Your task to perform on an android device: turn off data saver in the chrome app Image 0: 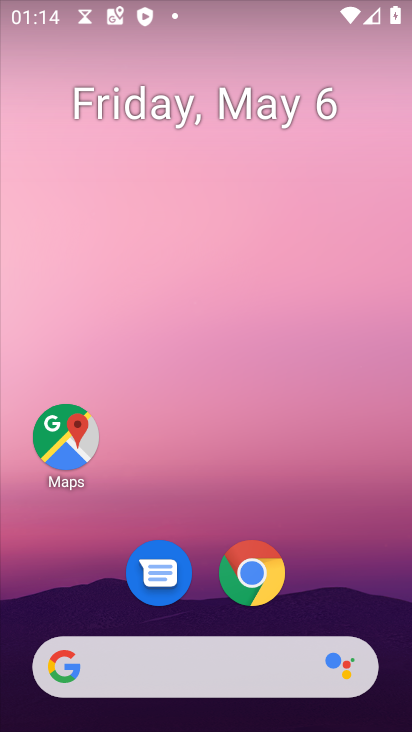
Step 0: drag from (309, 495) to (303, 305)
Your task to perform on an android device: turn off data saver in the chrome app Image 1: 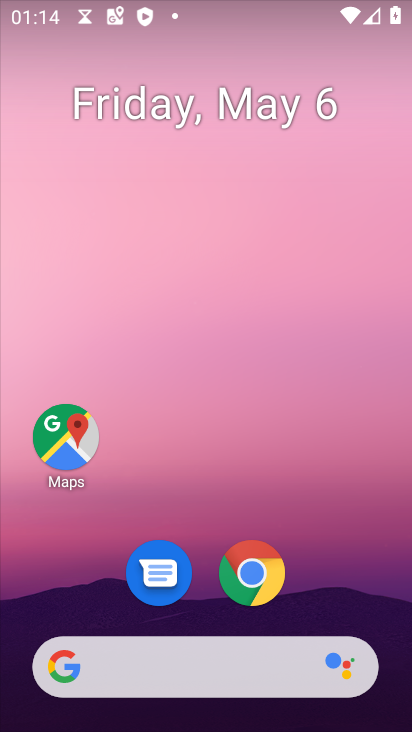
Step 1: drag from (341, 358) to (341, 224)
Your task to perform on an android device: turn off data saver in the chrome app Image 2: 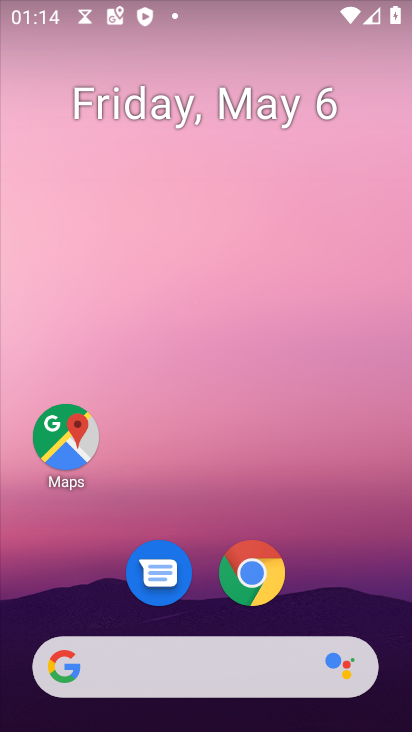
Step 2: drag from (231, 601) to (288, 198)
Your task to perform on an android device: turn off data saver in the chrome app Image 3: 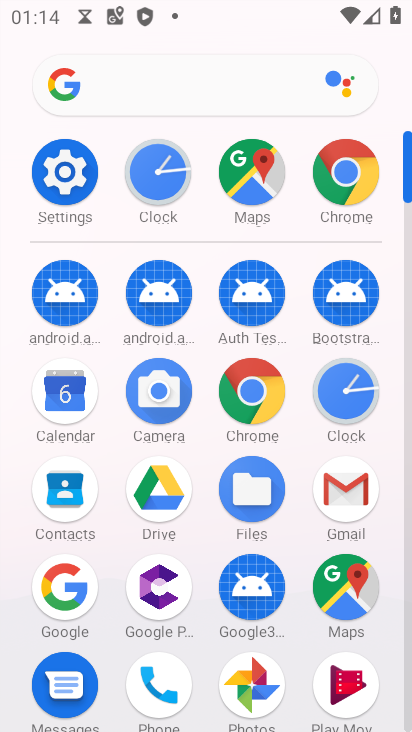
Step 3: click (251, 378)
Your task to perform on an android device: turn off data saver in the chrome app Image 4: 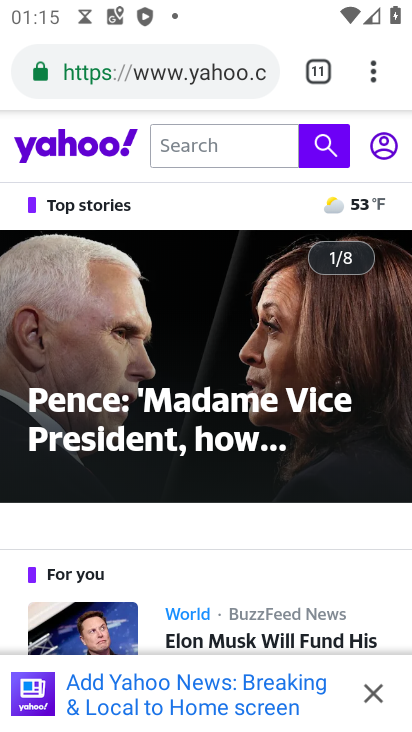
Step 4: click (354, 70)
Your task to perform on an android device: turn off data saver in the chrome app Image 5: 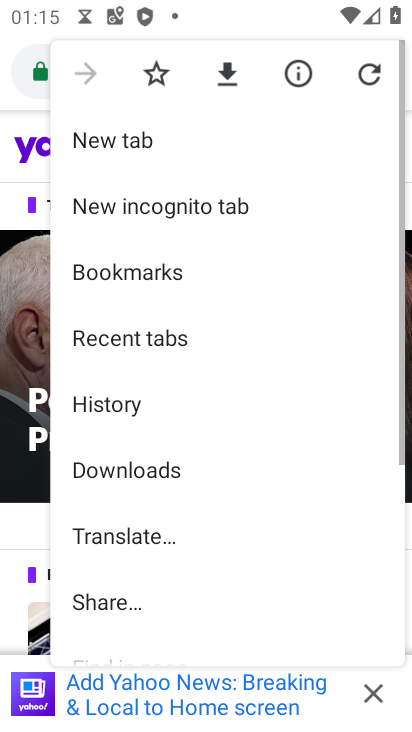
Step 5: drag from (131, 577) to (253, 185)
Your task to perform on an android device: turn off data saver in the chrome app Image 6: 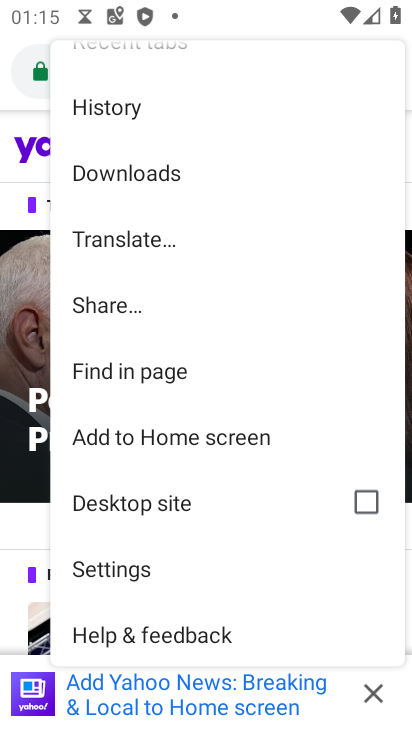
Step 6: click (155, 574)
Your task to perform on an android device: turn off data saver in the chrome app Image 7: 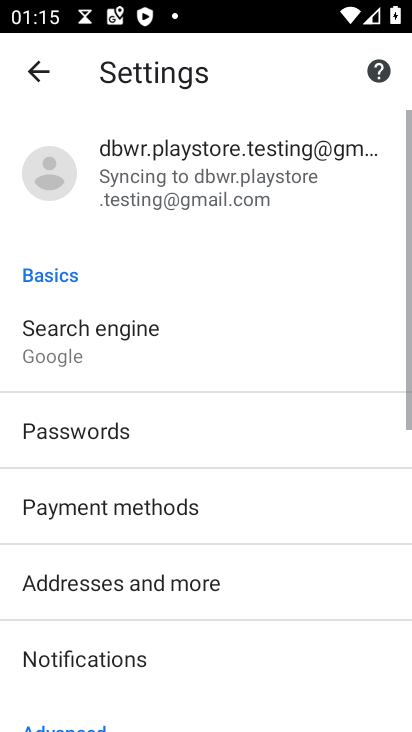
Step 7: drag from (212, 565) to (315, 167)
Your task to perform on an android device: turn off data saver in the chrome app Image 8: 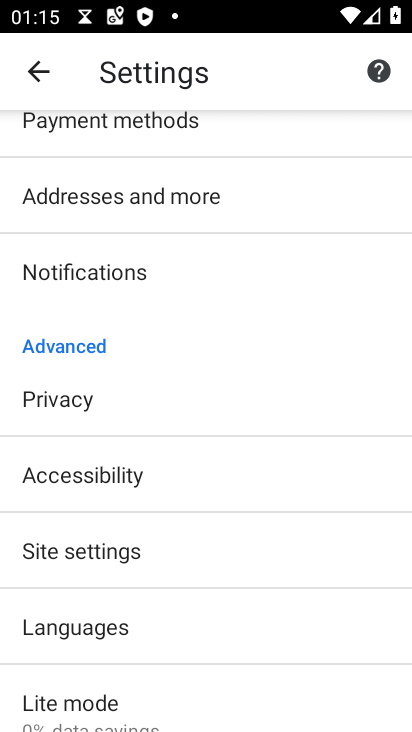
Step 8: click (88, 698)
Your task to perform on an android device: turn off data saver in the chrome app Image 9: 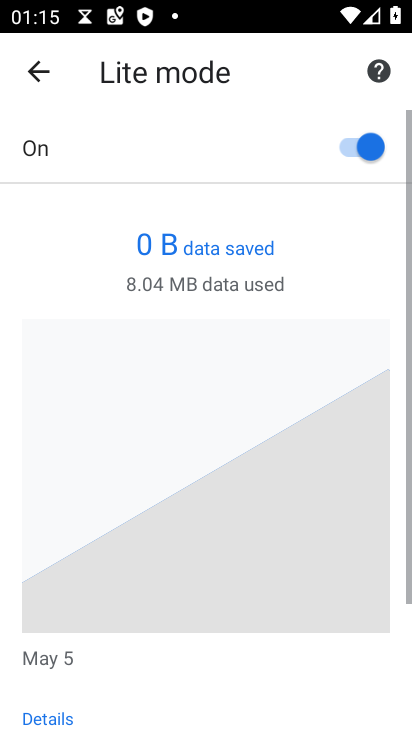
Step 9: click (338, 140)
Your task to perform on an android device: turn off data saver in the chrome app Image 10: 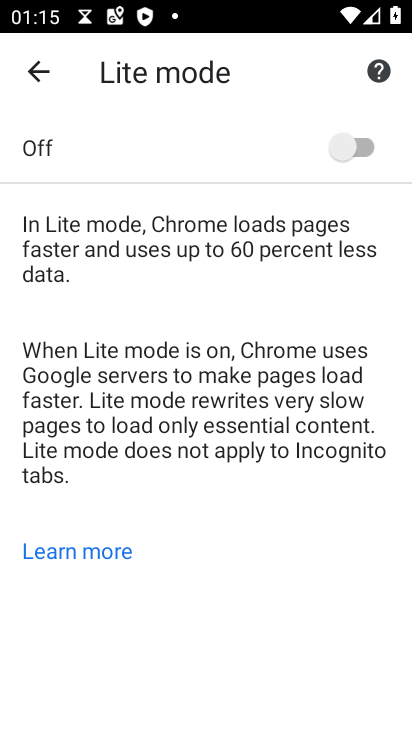
Step 10: task complete